Your task to perform on an android device: Check the weather Image 0: 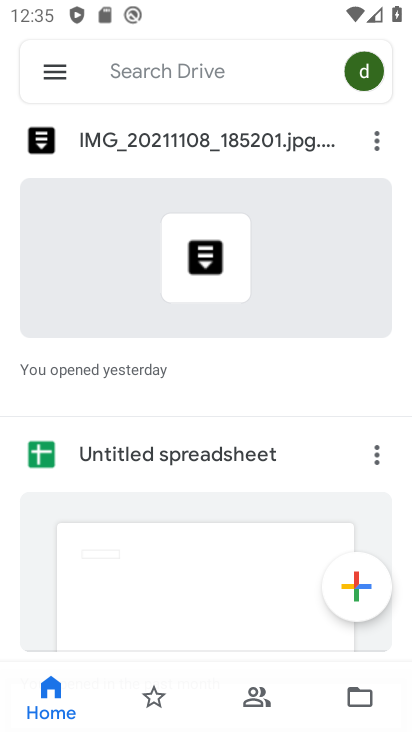
Step 0: press home button
Your task to perform on an android device: Check the weather Image 1: 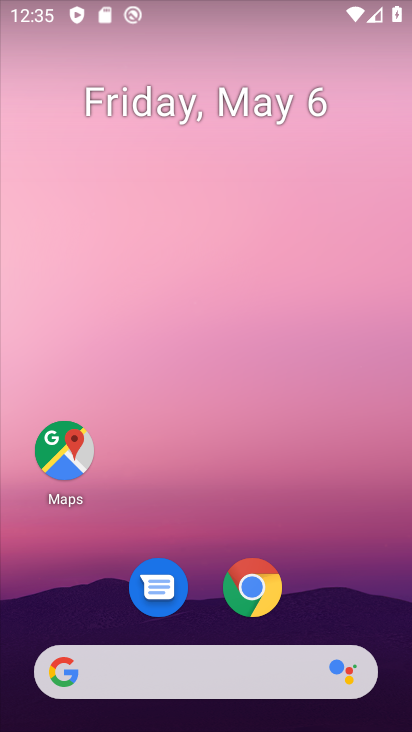
Step 1: click (154, 668)
Your task to perform on an android device: Check the weather Image 2: 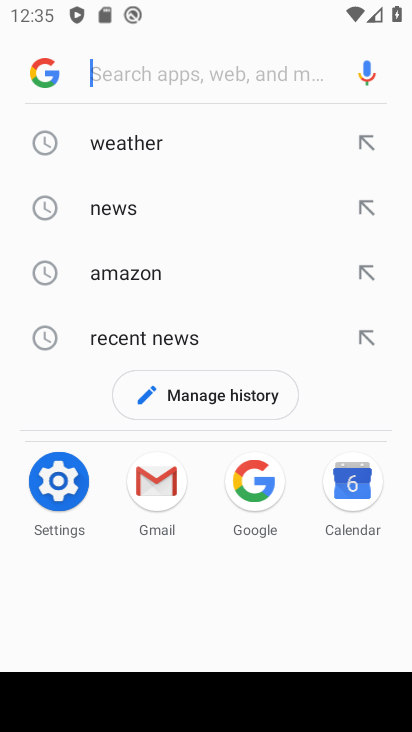
Step 2: click (195, 76)
Your task to perform on an android device: Check the weather Image 3: 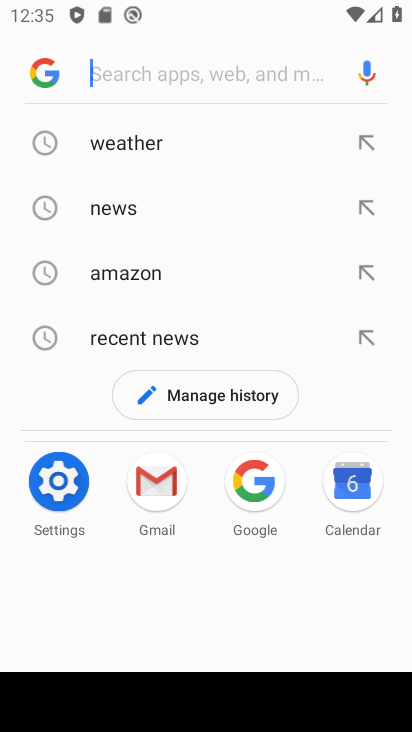
Step 3: click (171, 127)
Your task to perform on an android device: Check the weather Image 4: 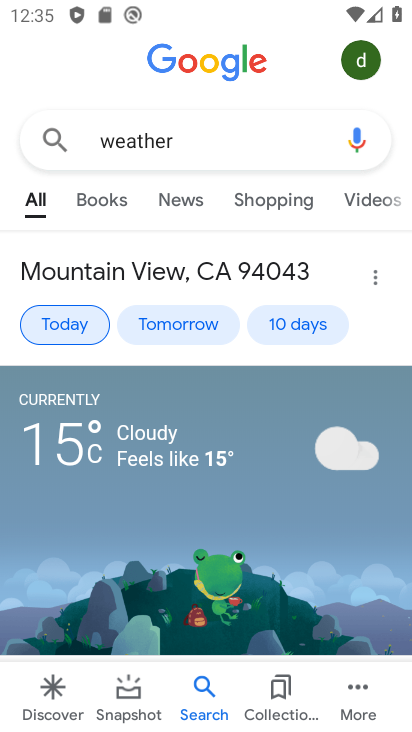
Step 4: task complete